Your task to perform on an android device: Open Chrome and go to settings Image 0: 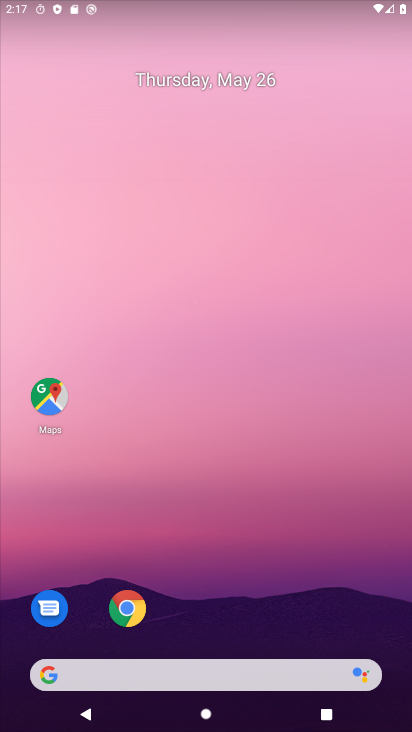
Step 0: drag from (296, 692) to (203, 228)
Your task to perform on an android device: Open Chrome and go to settings Image 1: 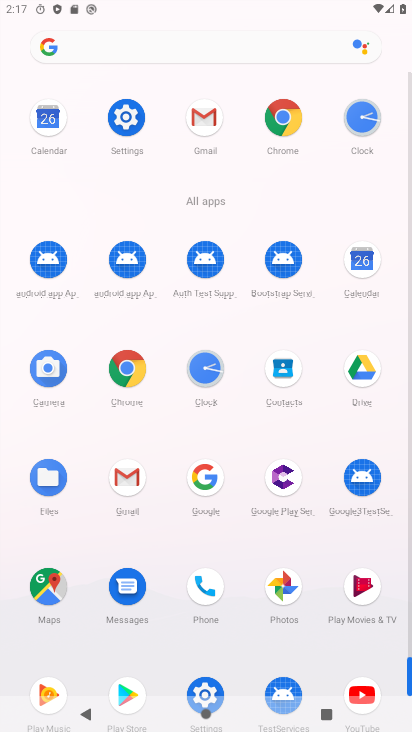
Step 1: click (122, 125)
Your task to perform on an android device: Open Chrome and go to settings Image 2: 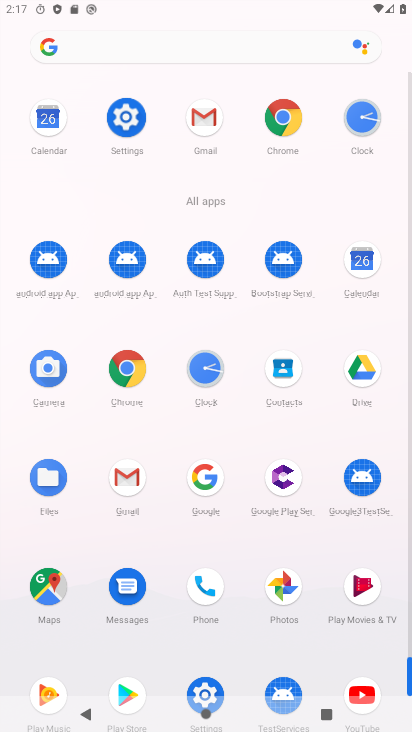
Step 2: click (122, 125)
Your task to perform on an android device: Open Chrome and go to settings Image 3: 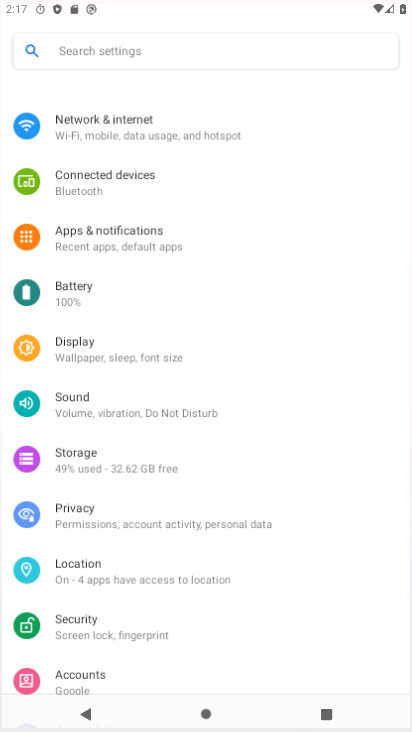
Step 3: click (125, 122)
Your task to perform on an android device: Open Chrome and go to settings Image 4: 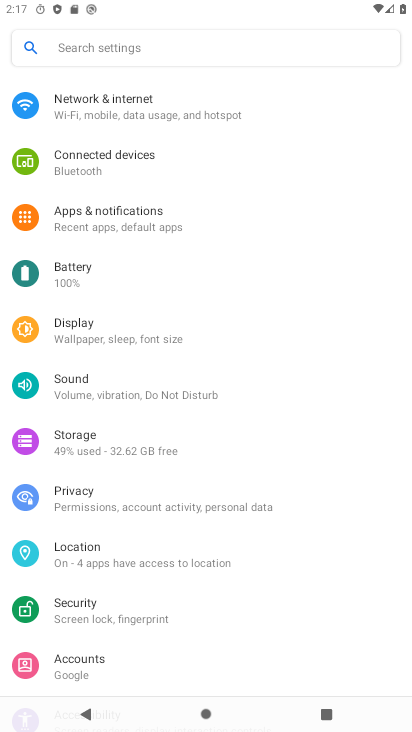
Step 4: click (125, 120)
Your task to perform on an android device: Open Chrome and go to settings Image 5: 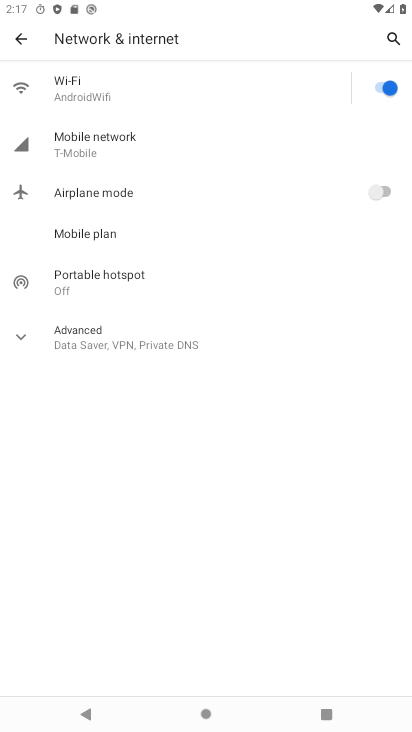
Step 5: click (25, 24)
Your task to perform on an android device: Open Chrome and go to settings Image 6: 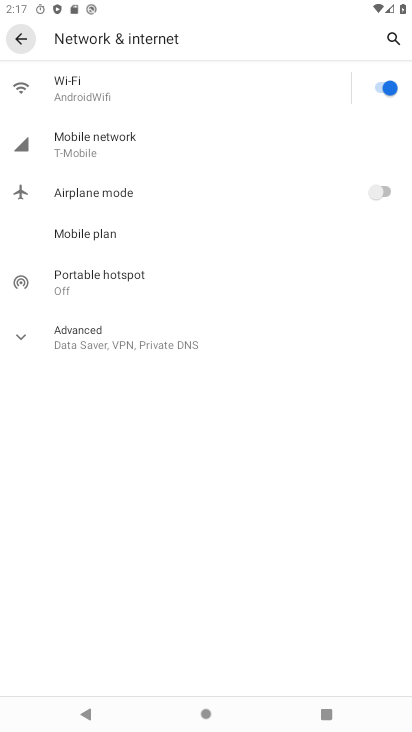
Step 6: click (19, 34)
Your task to perform on an android device: Open Chrome and go to settings Image 7: 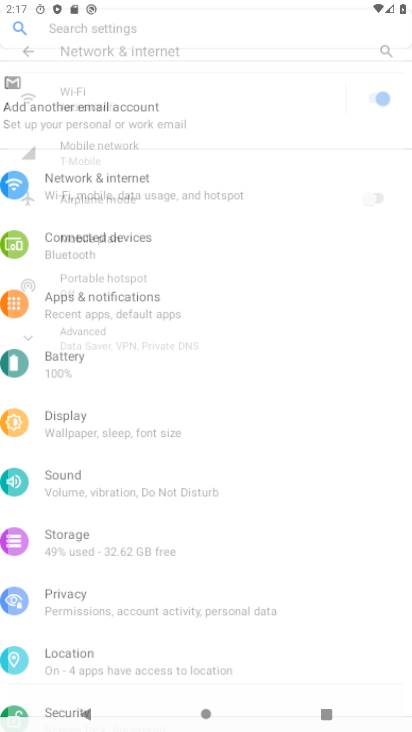
Step 7: click (19, 34)
Your task to perform on an android device: Open Chrome and go to settings Image 8: 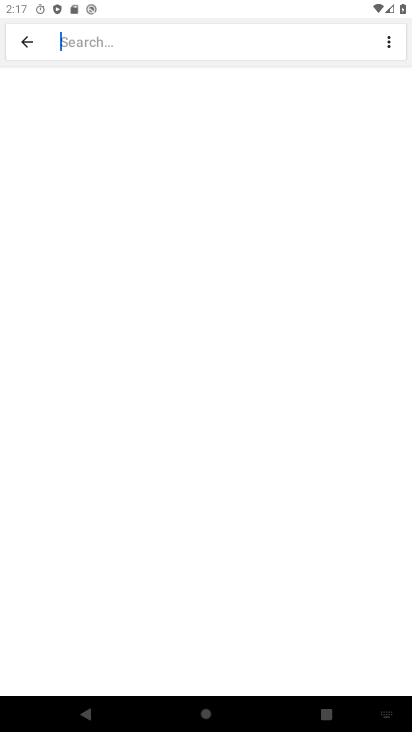
Step 8: click (29, 36)
Your task to perform on an android device: Open Chrome and go to settings Image 9: 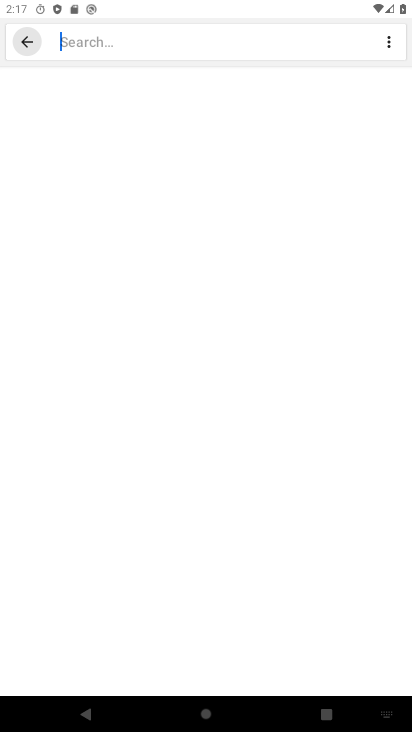
Step 9: click (27, 39)
Your task to perform on an android device: Open Chrome and go to settings Image 10: 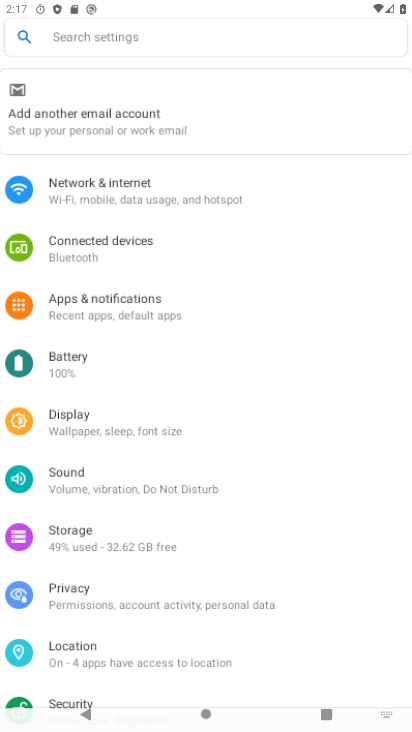
Step 10: click (26, 39)
Your task to perform on an android device: Open Chrome and go to settings Image 11: 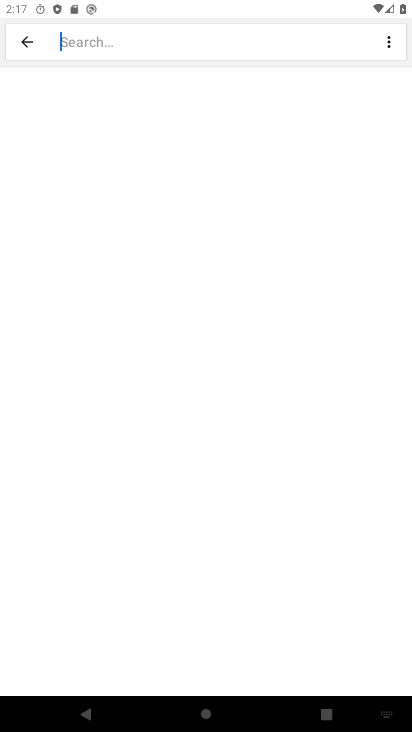
Step 11: click (27, 41)
Your task to perform on an android device: Open Chrome and go to settings Image 12: 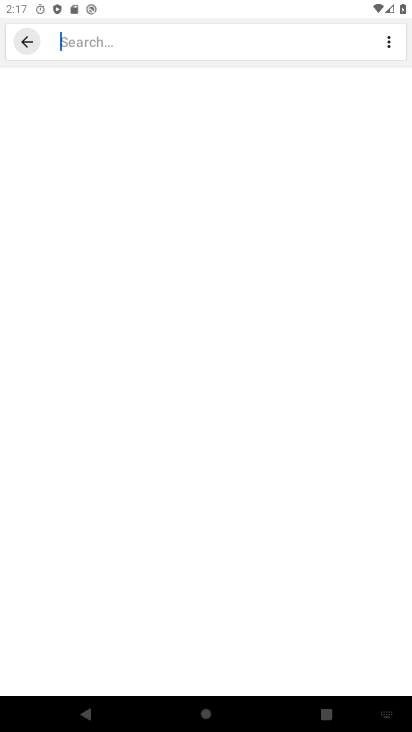
Step 12: click (27, 41)
Your task to perform on an android device: Open Chrome and go to settings Image 13: 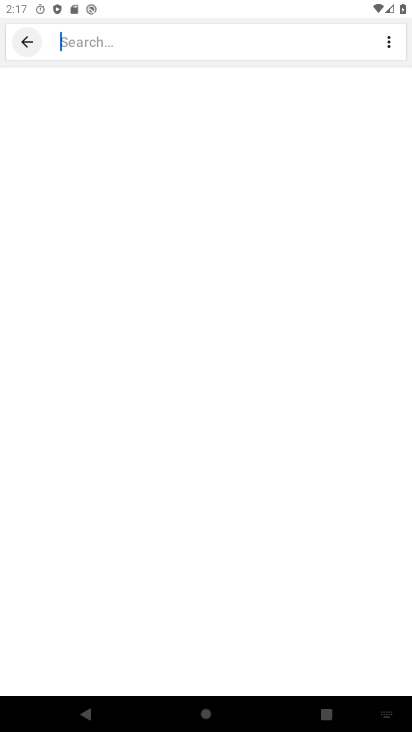
Step 13: click (27, 41)
Your task to perform on an android device: Open Chrome and go to settings Image 14: 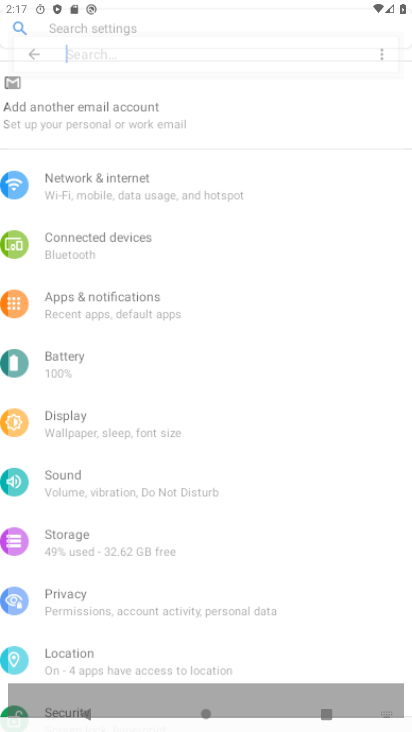
Step 14: click (27, 41)
Your task to perform on an android device: Open Chrome and go to settings Image 15: 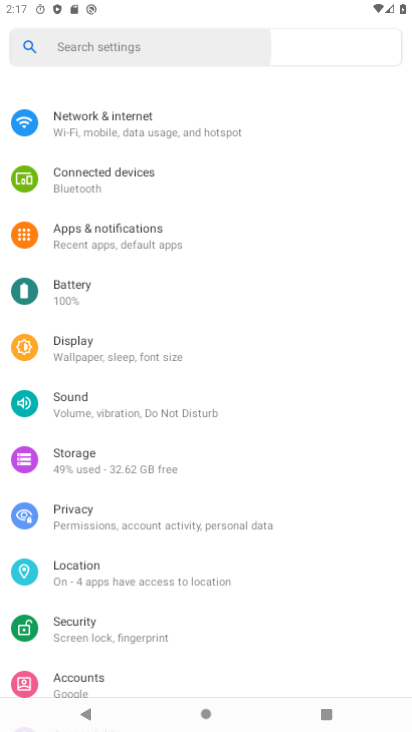
Step 15: click (27, 41)
Your task to perform on an android device: Open Chrome and go to settings Image 16: 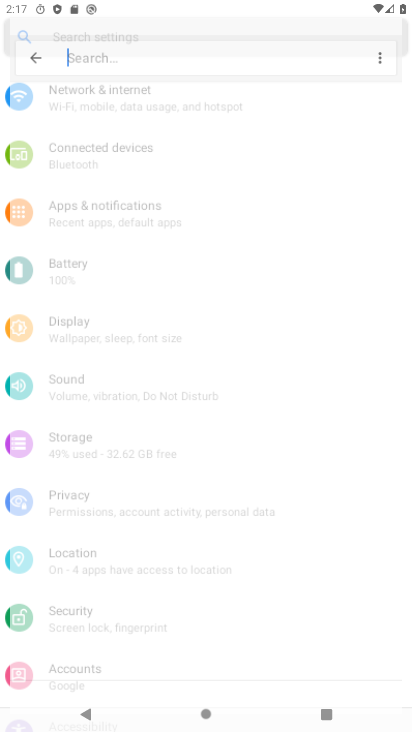
Step 16: click (26, 40)
Your task to perform on an android device: Open Chrome and go to settings Image 17: 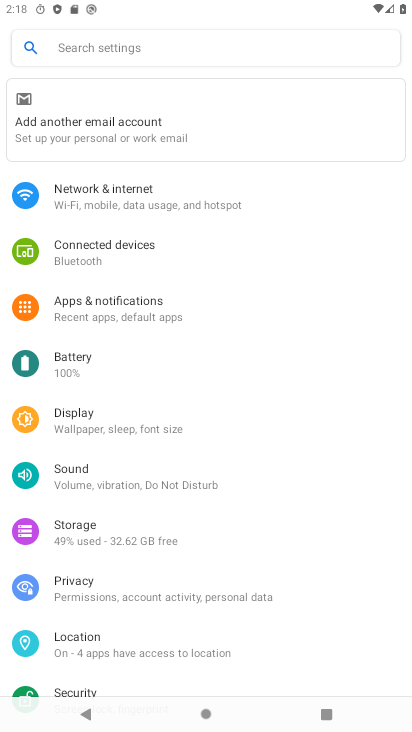
Step 17: press home button
Your task to perform on an android device: Open Chrome and go to settings Image 18: 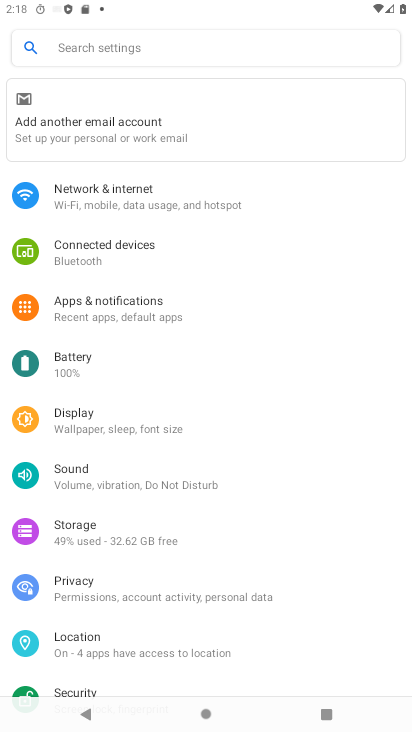
Step 18: press home button
Your task to perform on an android device: Open Chrome and go to settings Image 19: 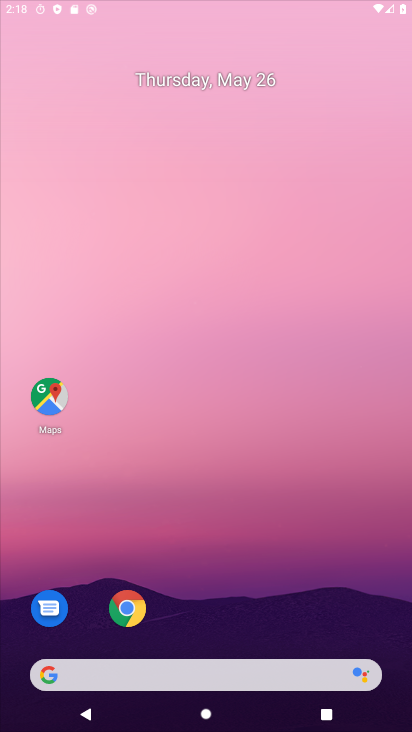
Step 19: press home button
Your task to perform on an android device: Open Chrome and go to settings Image 20: 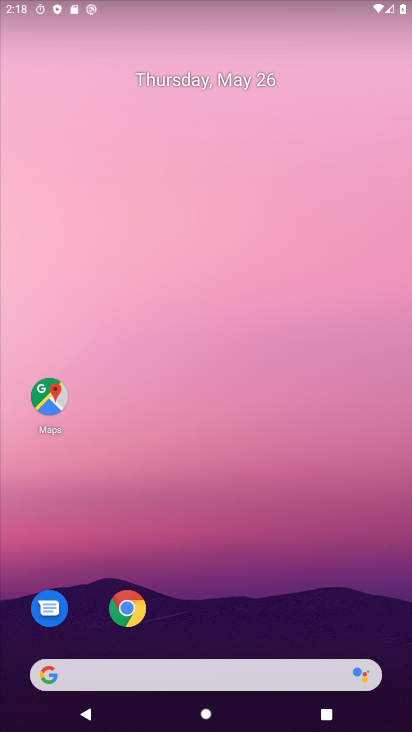
Step 20: drag from (249, 697) to (165, 121)
Your task to perform on an android device: Open Chrome and go to settings Image 21: 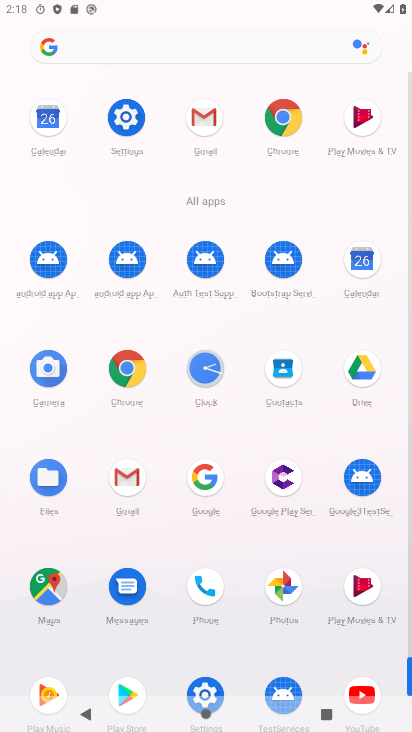
Step 21: click (282, 119)
Your task to perform on an android device: Open Chrome and go to settings Image 22: 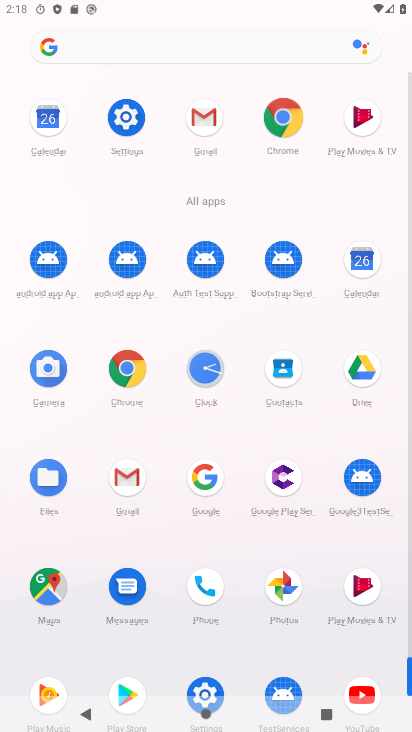
Step 22: click (282, 119)
Your task to perform on an android device: Open Chrome and go to settings Image 23: 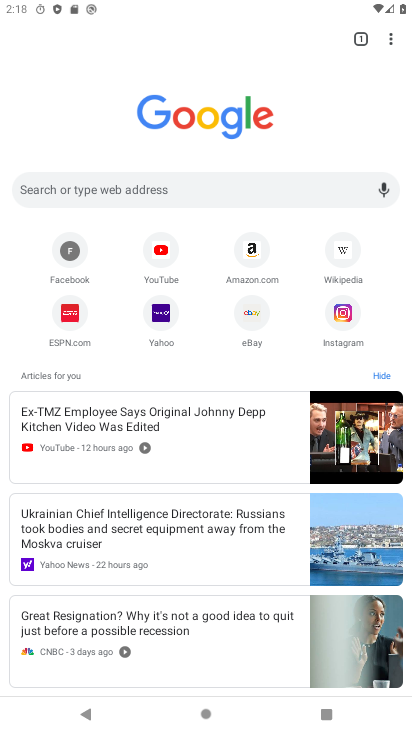
Step 23: drag from (392, 34) to (250, 355)
Your task to perform on an android device: Open Chrome and go to settings Image 24: 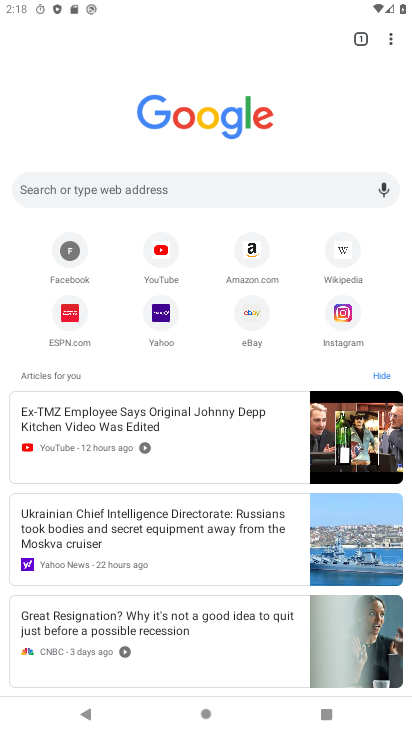
Step 24: click (257, 354)
Your task to perform on an android device: Open Chrome and go to settings Image 25: 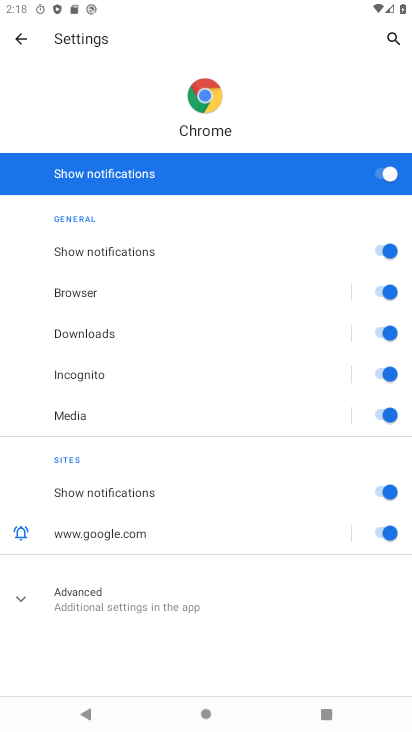
Step 25: click (19, 35)
Your task to perform on an android device: Open Chrome and go to settings Image 26: 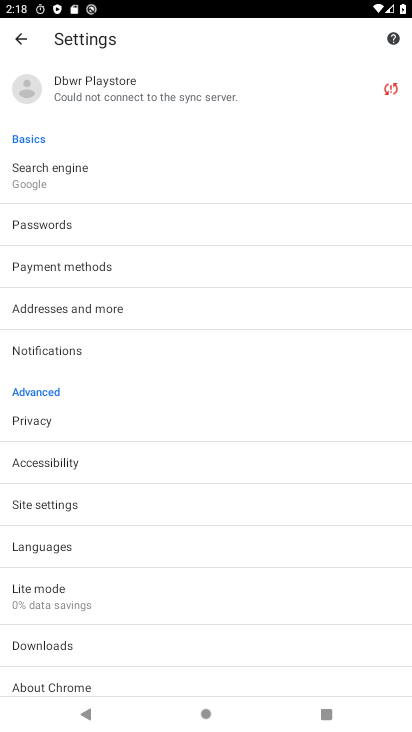
Step 26: click (40, 505)
Your task to perform on an android device: Open Chrome and go to settings Image 27: 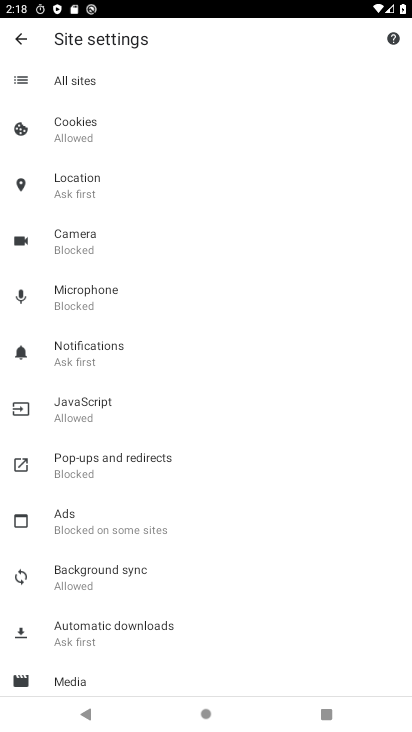
Step 27: task complete